Your task to perform on an android device: Open privacy settings Image 0: 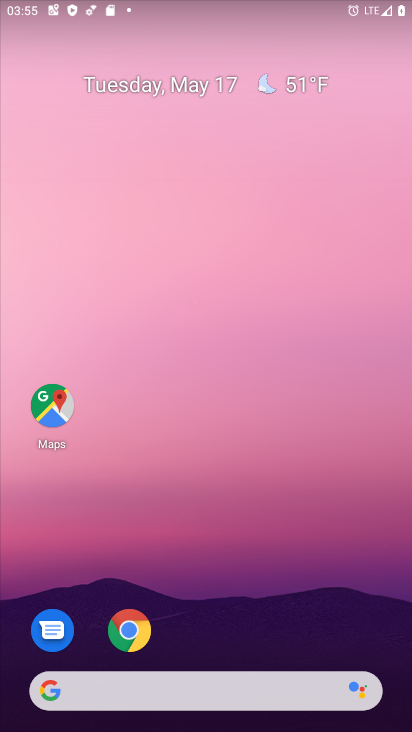
Step 0: drag from (236, 498) to (270, 66)
Your task to perform on an android device: Open privacy settings Image 1: 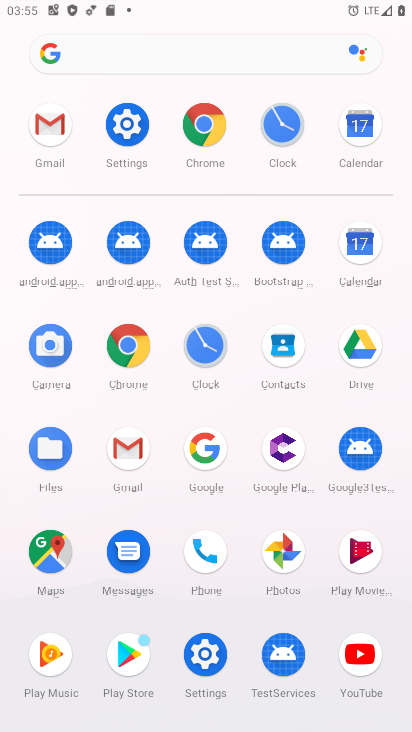
Step 1: click (124, 126)
Your task to perform on an android device: Open privacy settings Image 2: 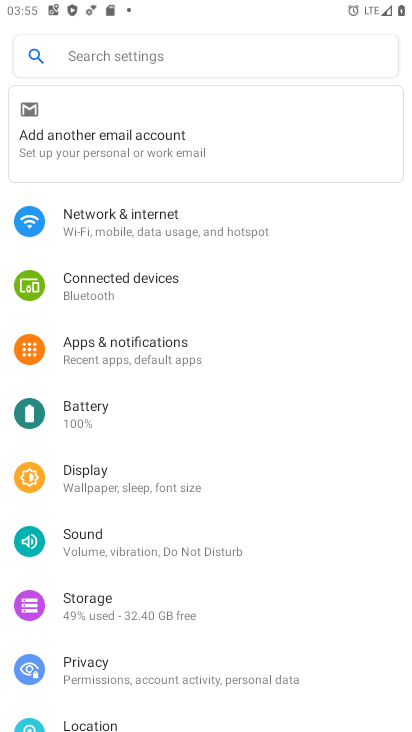
Step 2: click (103, 677)
Your task to perform on an android device: Open privacy settings Image 3: 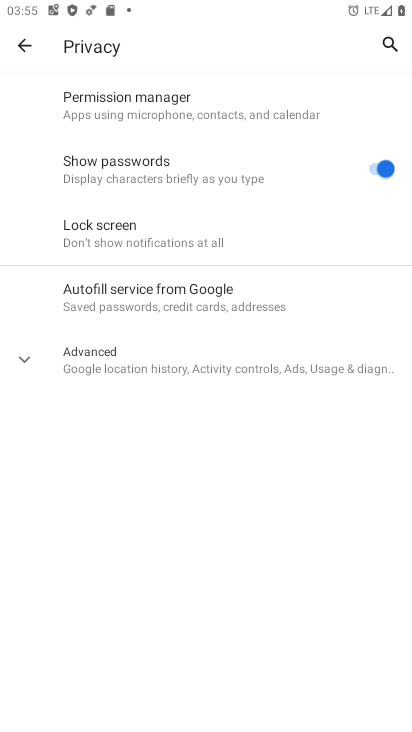
Step 3: task complete